Your task to perform on an android device: check storage Image 0: 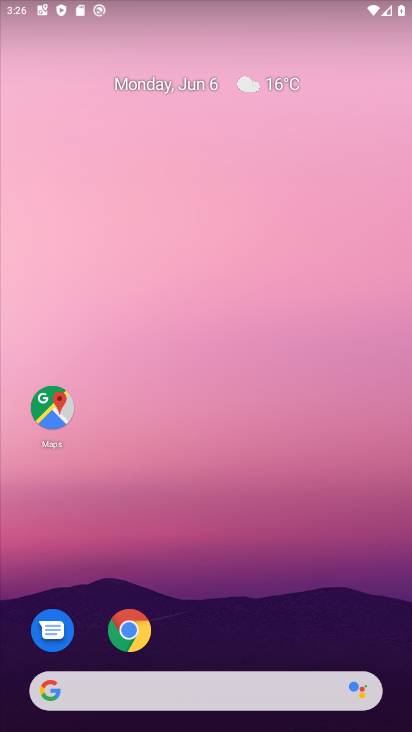
Step 0: drag from (202, 621) to (284, 148)
Your task to perform on an android device: check storage Image 1: 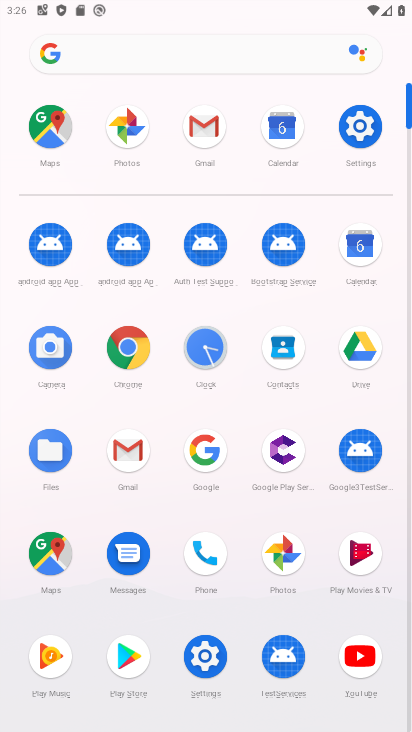
Step 1: click (360, 138)
Your task to perform on an android device: check storage Image 2: 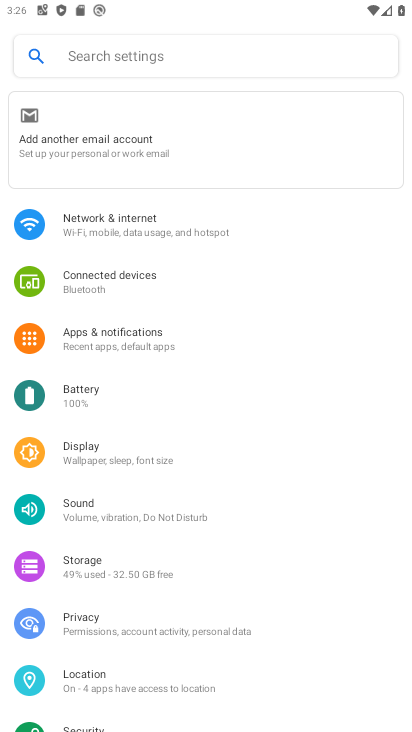
Step 2: click (95, 560)
Your task to perform on an android device: check storage Image 3: 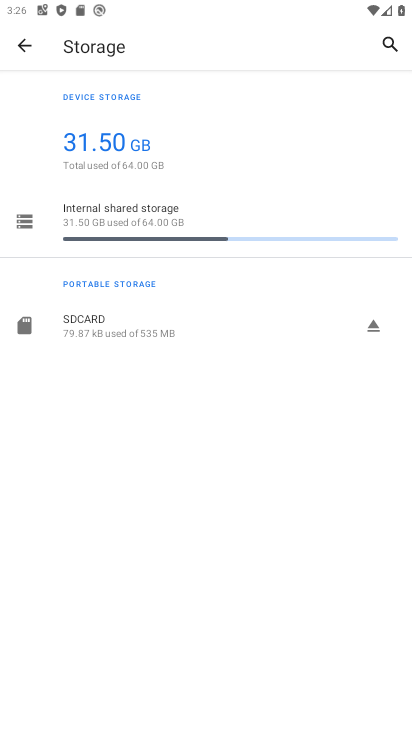
Step 3: task complete